Your task to perform on an android device: change the clock display to show seconds Image 0: 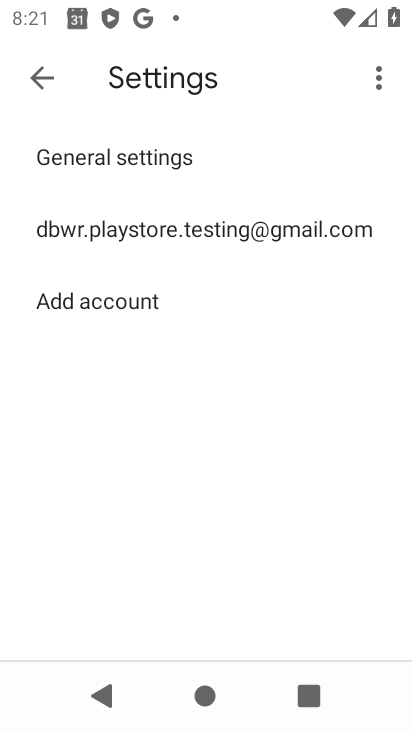
Step 0: press back button
Your task to perform on an android device: change the clock display to show seconds Image 1: 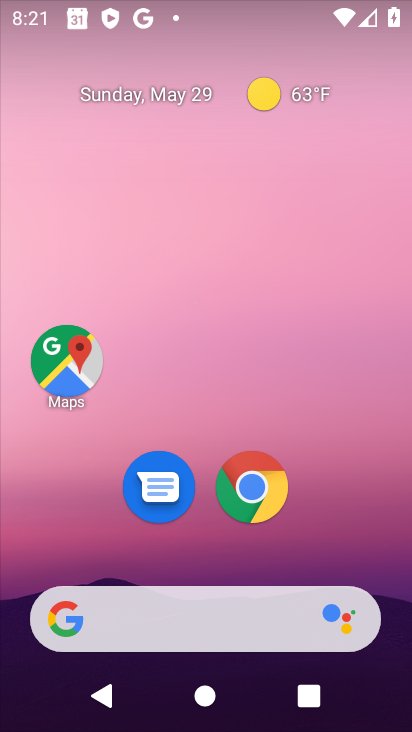
Step 1: drag from (320, 545) to (216, 129)
Your task to perform on an android device: change the clock display to show seconds Image 2: 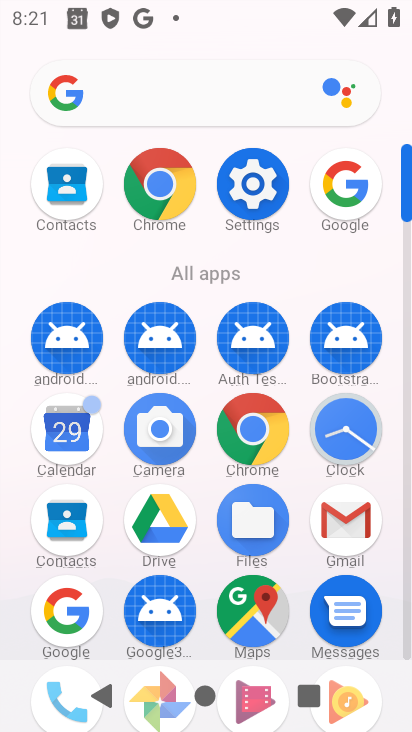
Step 2: drag from (205, 583) to (232, 303)
Your task to perform on an android device: change the clock display to show seconds Image 3: 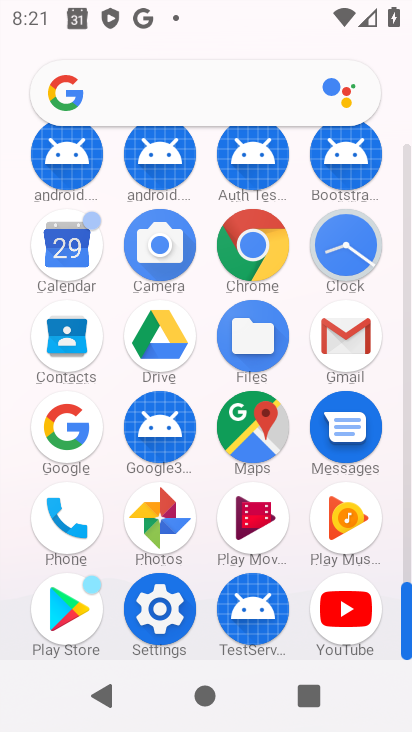
Step 3: click (344, 248)
Your task to perform on an android device: change the clock display to show seconds Image 4: 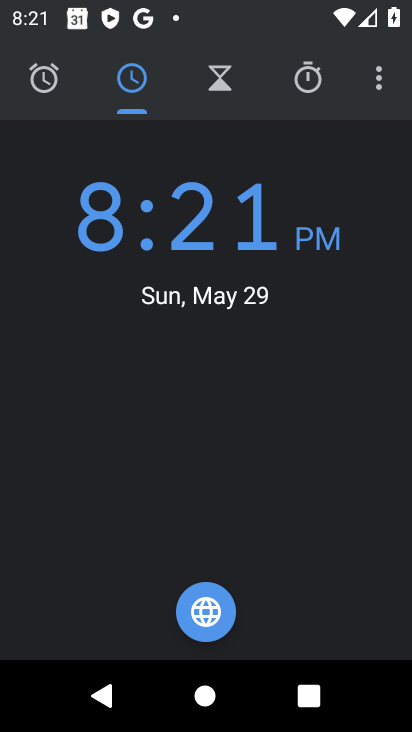
Step 4: click (381, 80)
Your task to perform on an android device: change the clock display to show seconds Image 5: 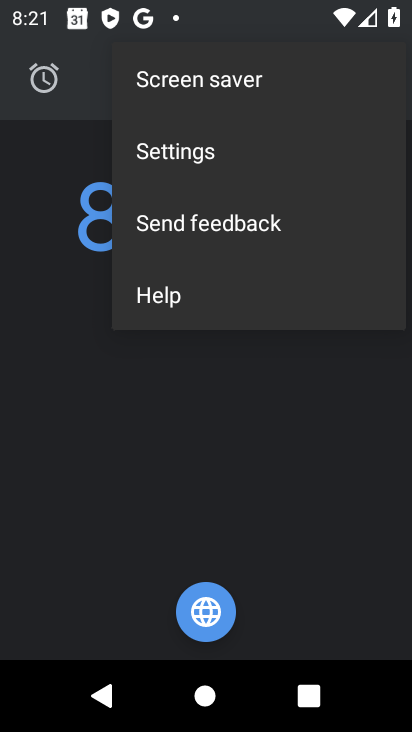
Step 5: click (206, 156)
Your task to perform on an android device: change the clock display to show seconds Image 6: 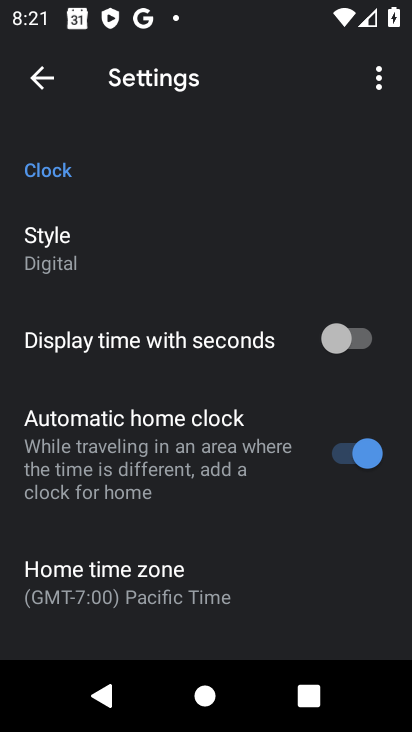
Step 6: click (338, 326)
Your task to perform on an android device: change the clock display to show seconds Image 7: 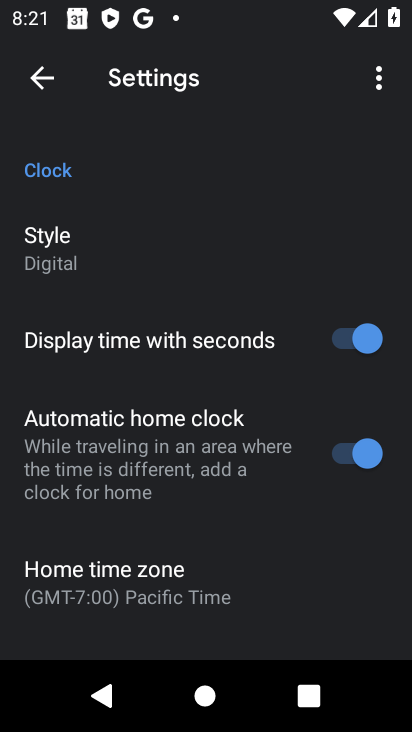
Step 7: task complete